Your task to perform on an android device: Search for Italian restaurants on Maps Image 0: 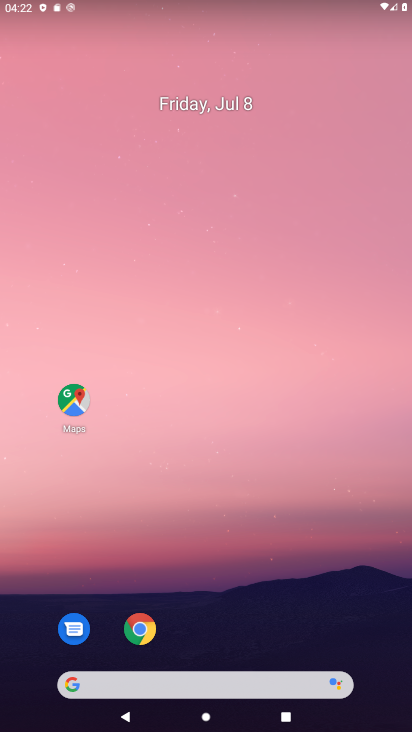
Step 0: drag from (230, 708) to (225, 117)
Your task to perform on an android device: Search for Italian restaurants on Maps Image 1: 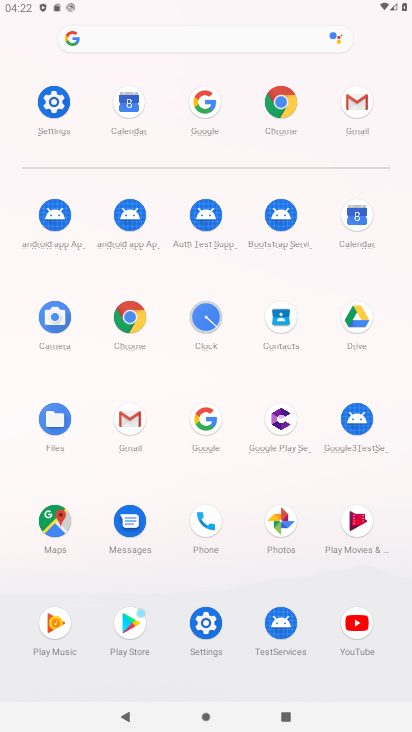
Step 1: click (59, 514)
Your task to perform on an android device: Search for Italian restaurants on Maps Image 2: 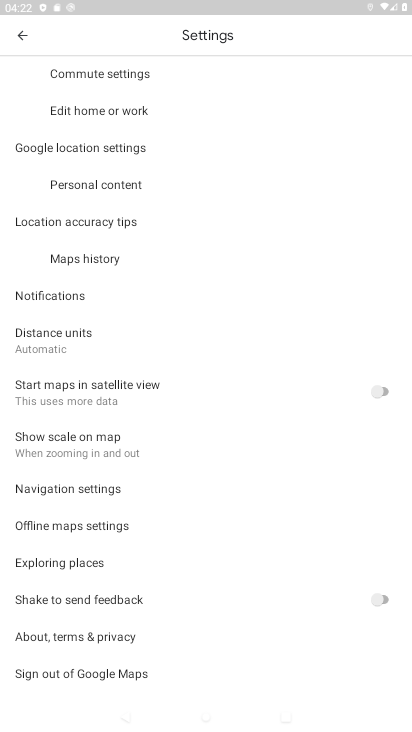
Step 2: click (22, 37)
Your task to perform on an android device: Search for Italian restaurants on Maps Image 3: 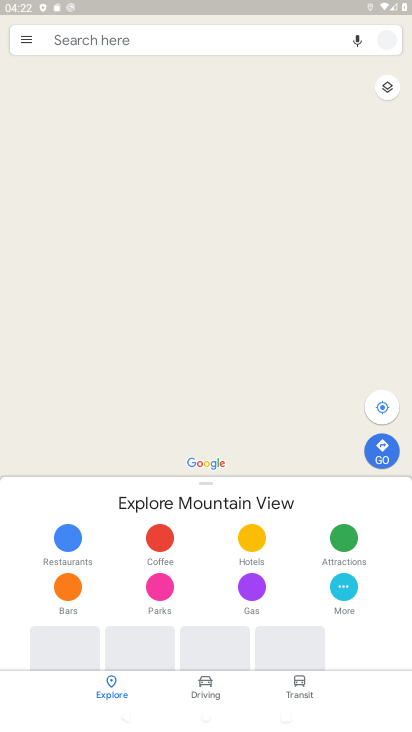
Step 3: click (23, 34)
Your task to perform on an android device: Search for Italian restaurants on Maps Image 4: 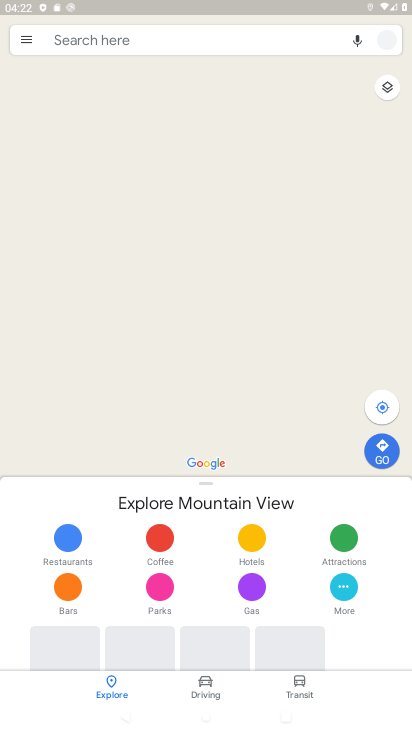
Step 4: click (157, 41)
Your task to perform on an android device: Search for Italian restaurants on Maps Image 5: 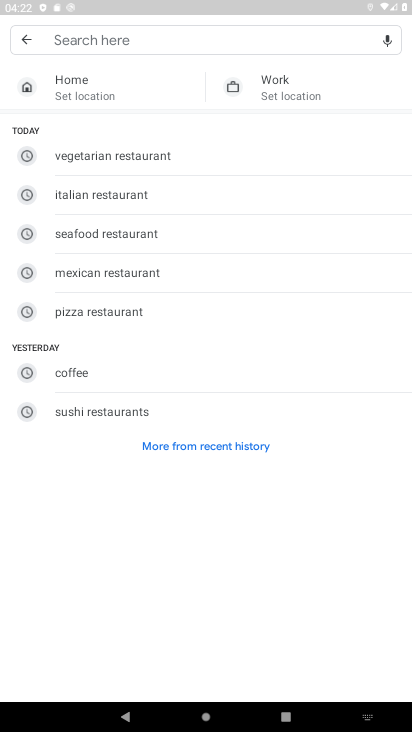
Step 5: type "Italian restaurants"
Your task to perform on an android device: Search for Italian restaurants on Maps Image 6: 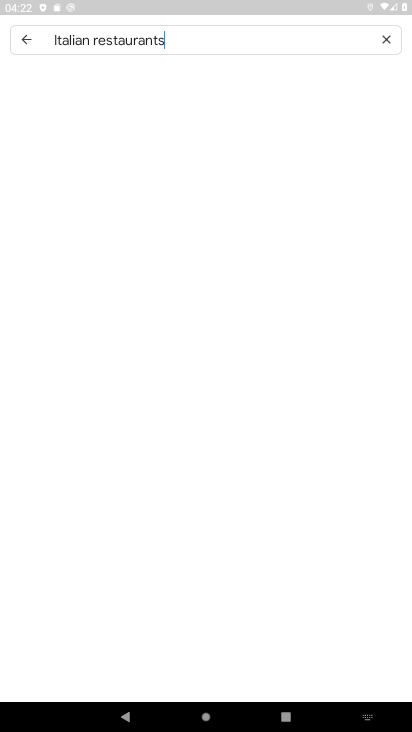
Step 6: type ""
Your task to perform on an android device: Search for Italian restaurants on Maps Image 7: 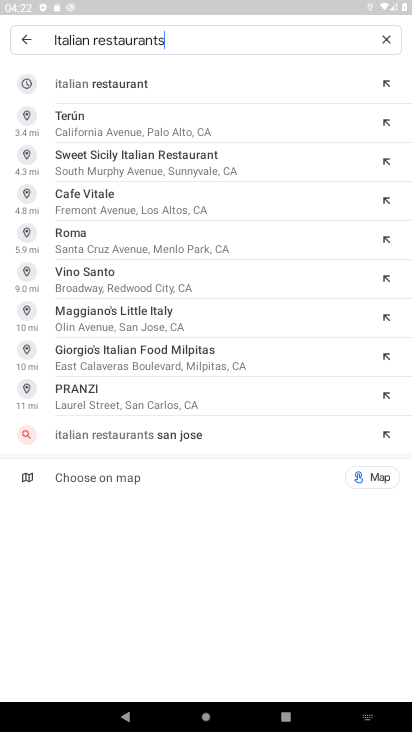
Step 7: click (123, 82)
Your task to perform on an android device: Search for Italian restaurants on Maps Image 8: 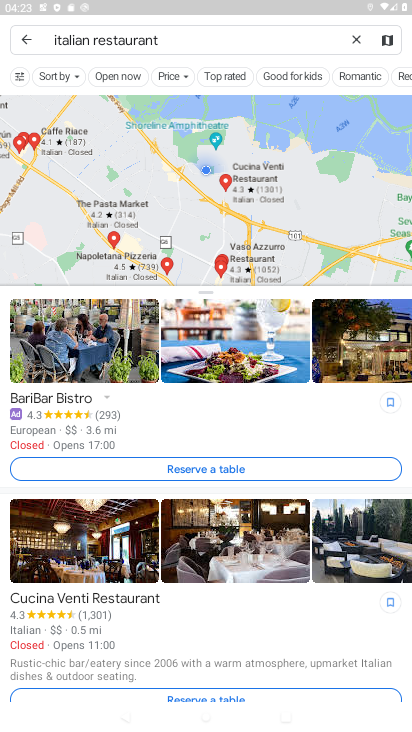
Step 8: task complete